Your task to perform on an android device: Open battery settings Image 0: 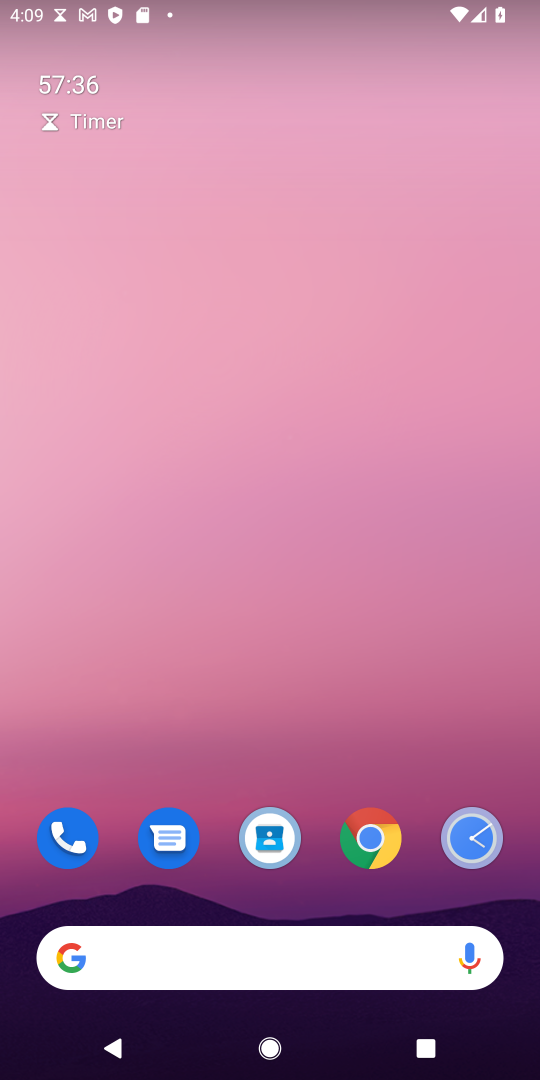
Step 0: drag from (376, 749) to (214, 87)
Your task to perform on an android device: Open battery settings Image 1: 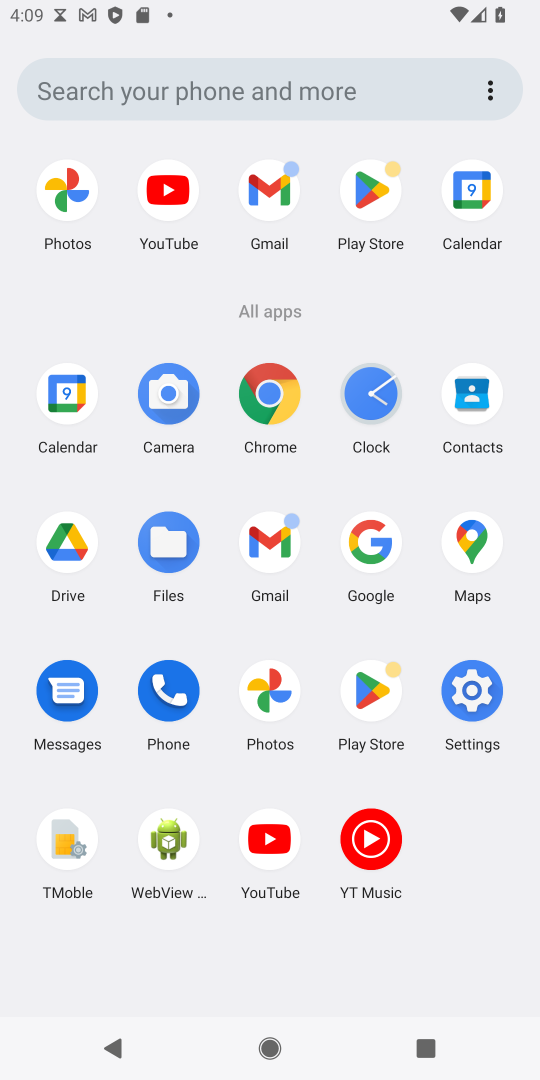
Step 1: click (175, 178)
Your task to perform on an android device: Open battery settings Image 2: 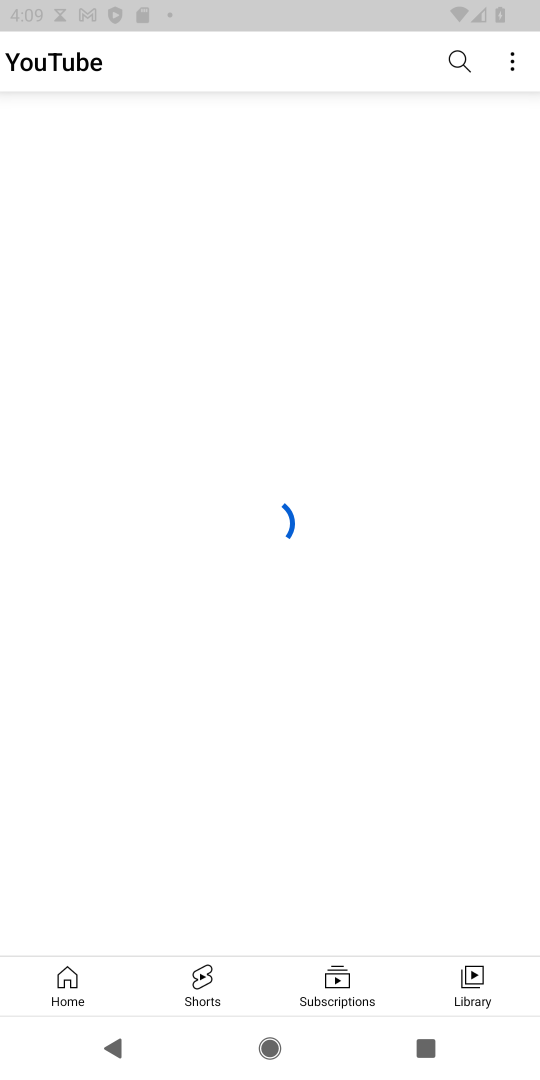
Step 2: press home button
Your task to perform on an android device: Open battery settings Image 3: 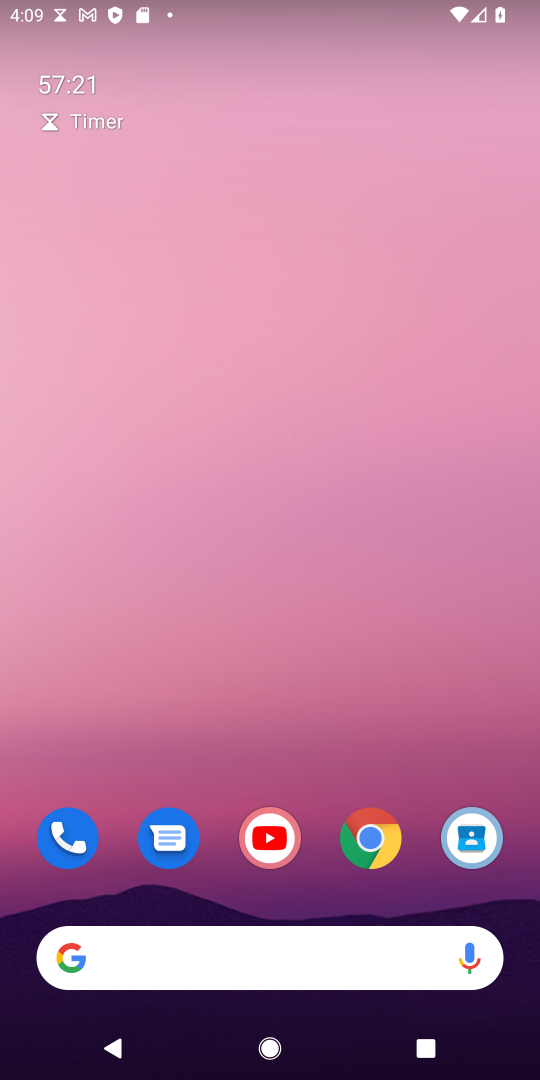
Step 3: drag from (309, 771) to (210, 164)
Your task to perform on an android device: Open battery settings Image 4: 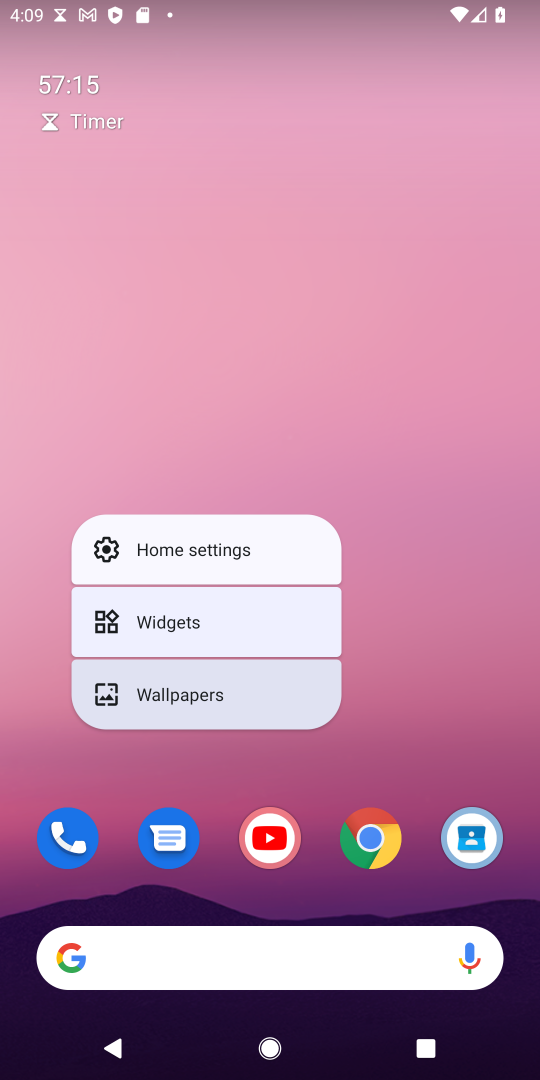
Step 4: drag from (534, 917) to (383, 217)
Your task to perform on an android device: Open battery settings Image 5: 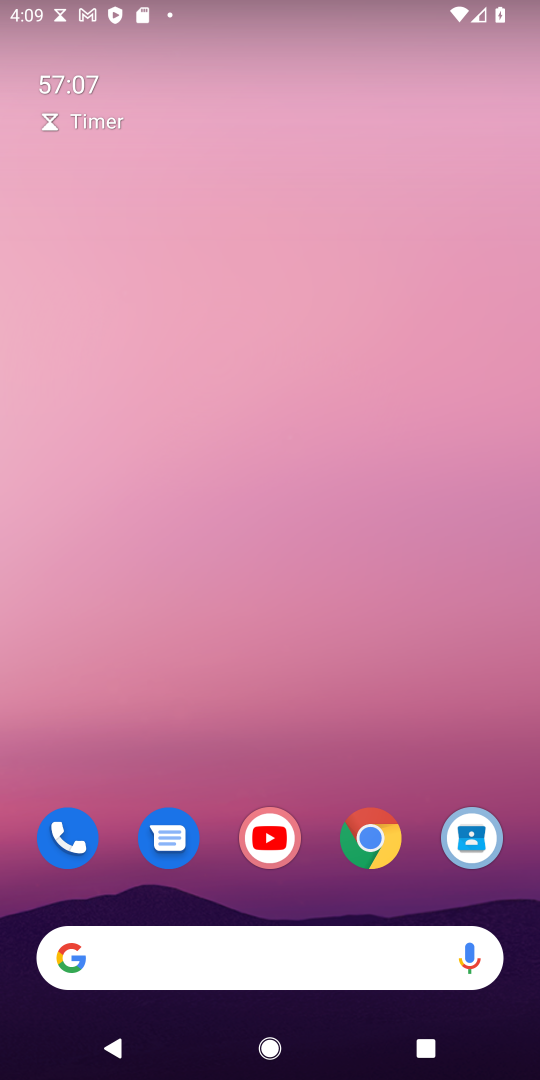
Step 5: drag from (314, 802) to (196, 157)
Your task to perform on an android device: Open battery settings Image 6: 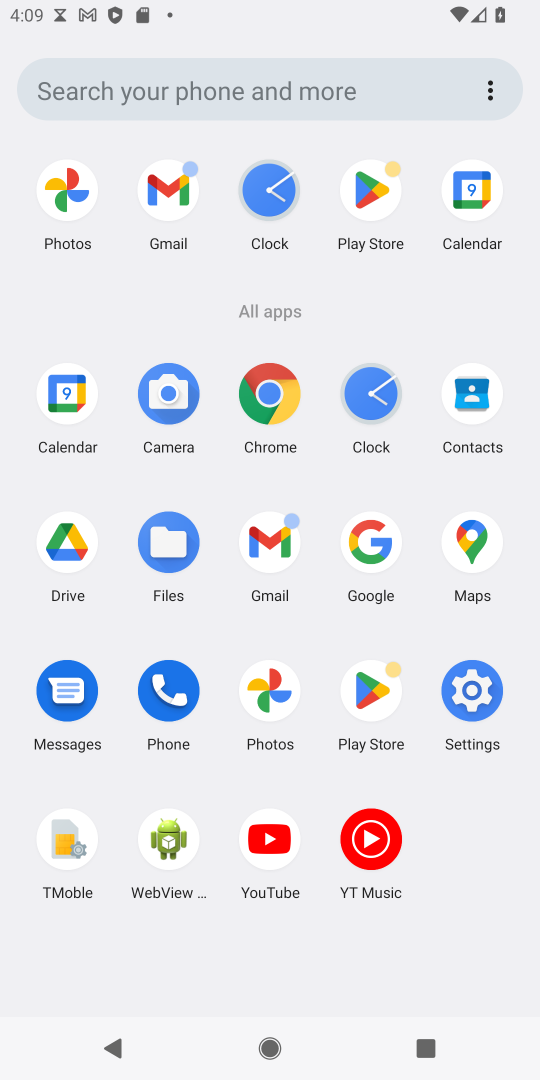
Step 6: click (470, 706)
Your task to perform on an android device: Open battery settings Image 7: 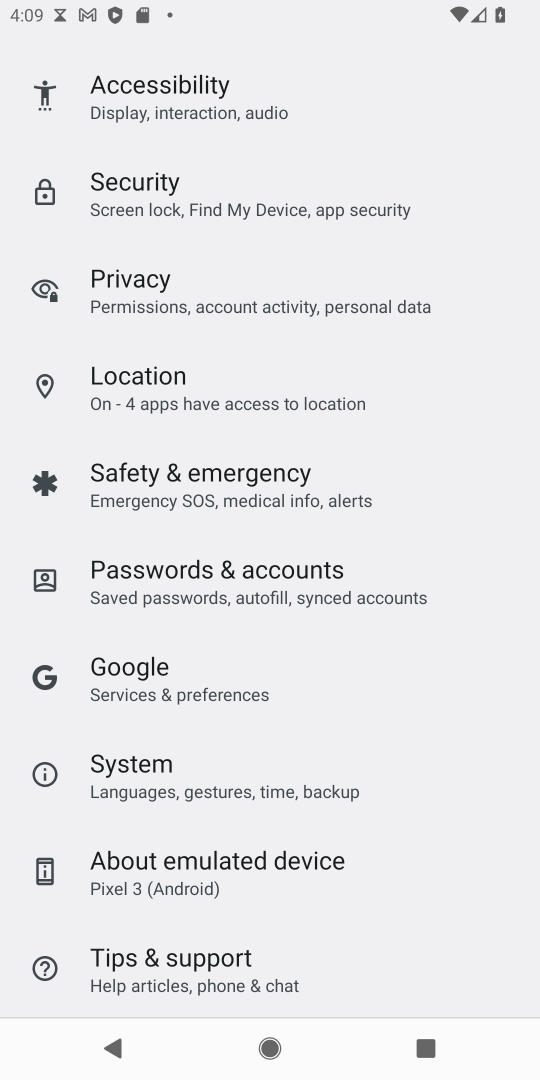
Step 7: drag from (243, 165) to (338, 977)
Your task to perform on an android device: Open battery settings Image 8: 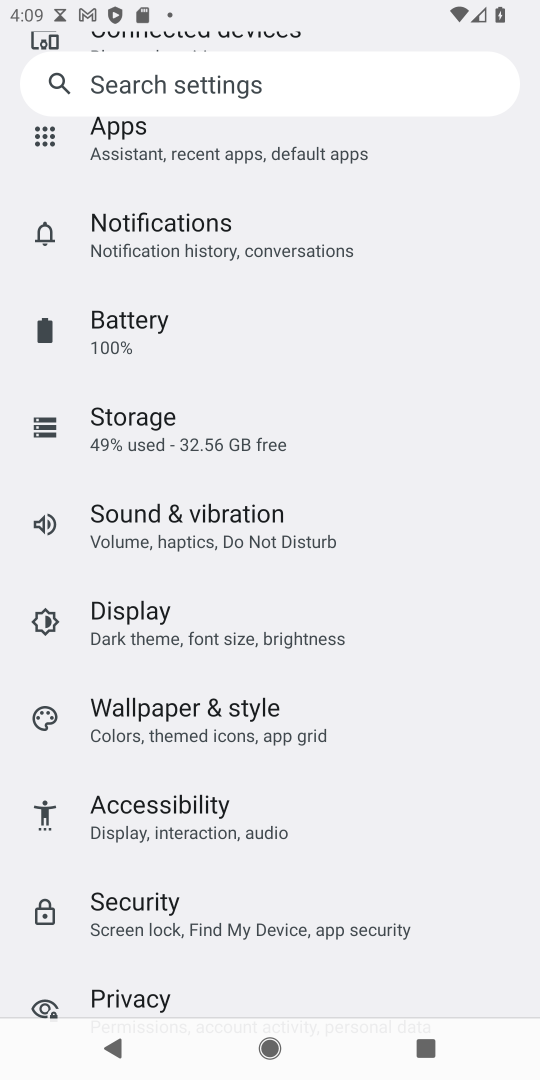
Step 8: click (151, 346)
Your task to perform on an android device: Open battery settings Image 9: 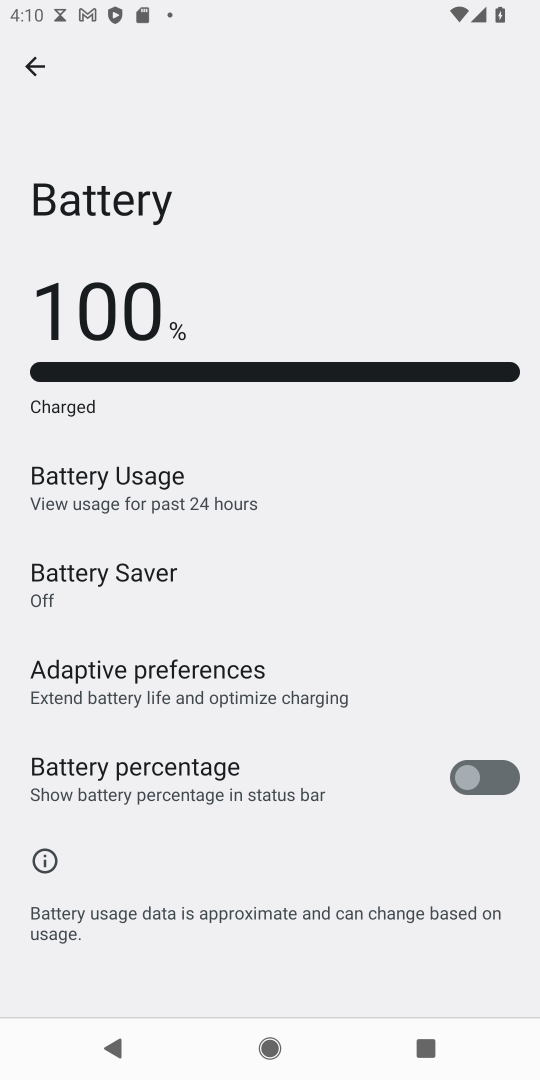
Step 9: task complete